Your task to perform on an android device: find which apps use the phone's location Image 0: 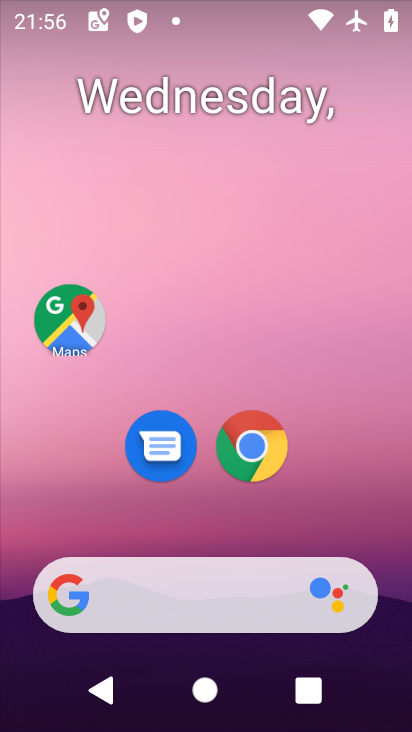
Step 0: press home button
Your task to perform on an android device: find which apps use the phone's location Image 1: 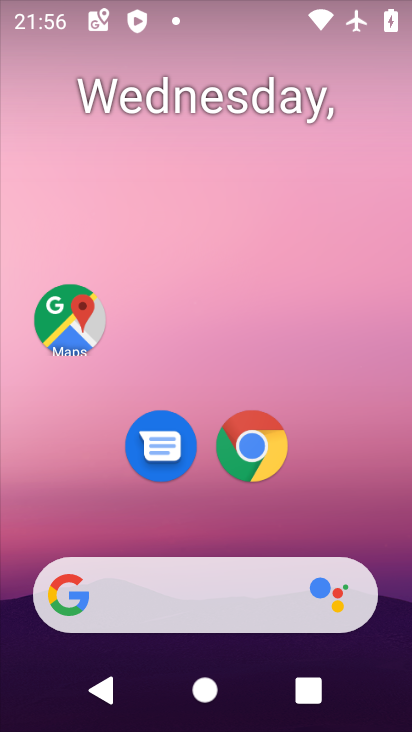
Step 1: drag from (167, 605) to (295, 207)
Your task to perform on an android device: find which apps use the phone's location Image 2: 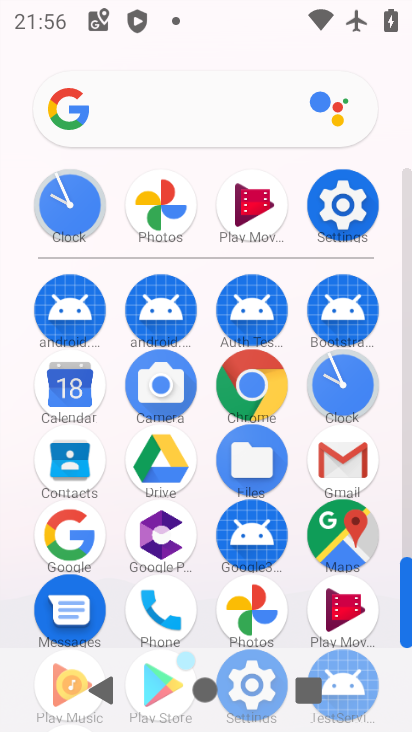
Step 2: click (336, 217)
Your task to perform on an android device: find which apps use the phone's location Image 3: 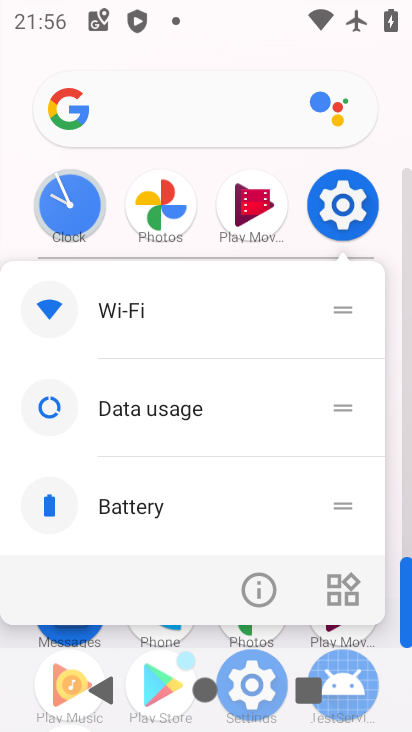
Step 3: click (342, 207)
Your task to perform on an android device: find which apps use the phone's location Image 4: 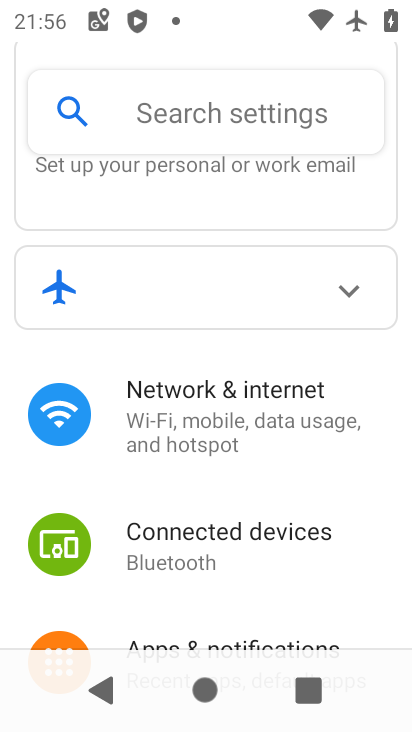
Step 4: drag from (181, 587) to (341, 176)
Your task to perform on an android device: find which apps use the phone's location Image 5: 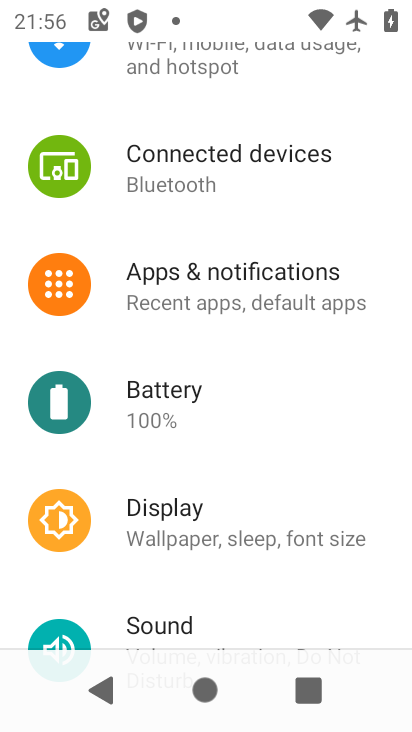
Step 5: drag from (319, 275) to (332, 135)
Your task to perform on an android device: find which apps use the phone's location Image 6: 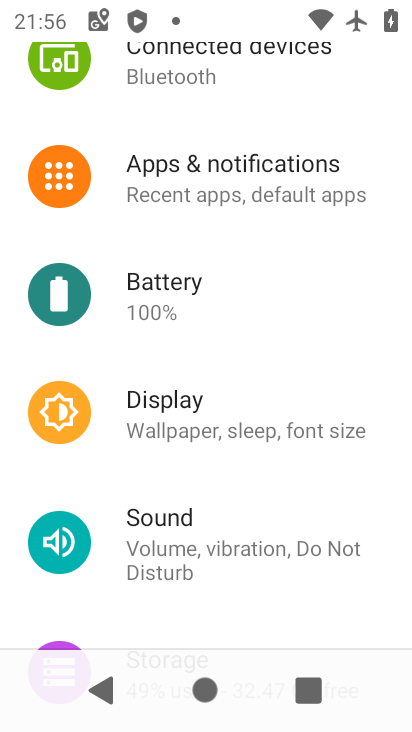
Step 6: drag from (239, 416) to (326, 115)
Your task to perform on an android device: find which apps use the phone's location Image 7: 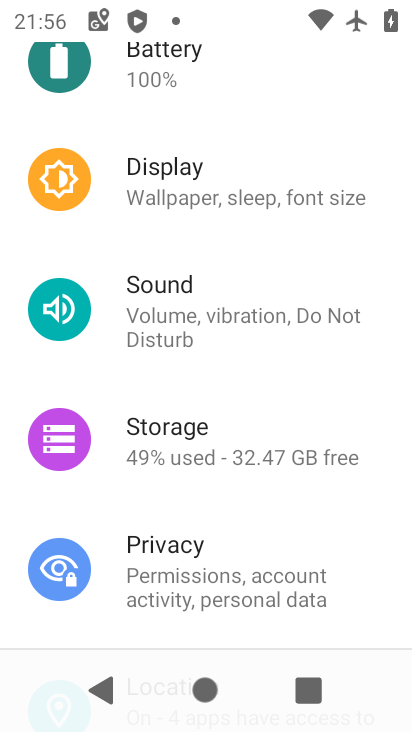
Step 7: drag from (195, 533) to (314, 246)
Your task to perform on an android device: find which apps use the phone's location Image 8: 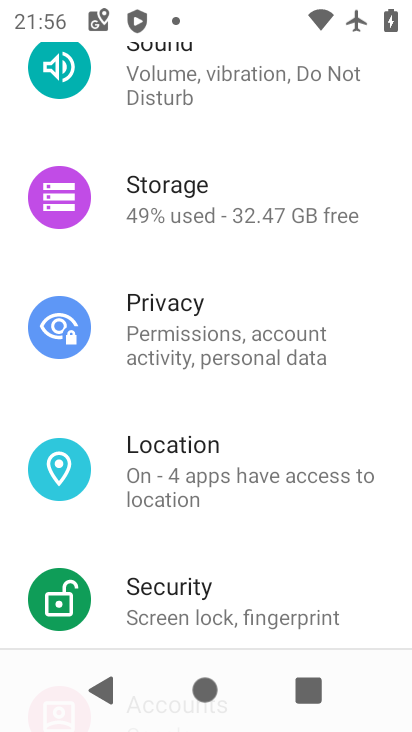
Step 8: click (209, 448)
Your task to perform on an android device: find which apps use the phone's location Image 9: 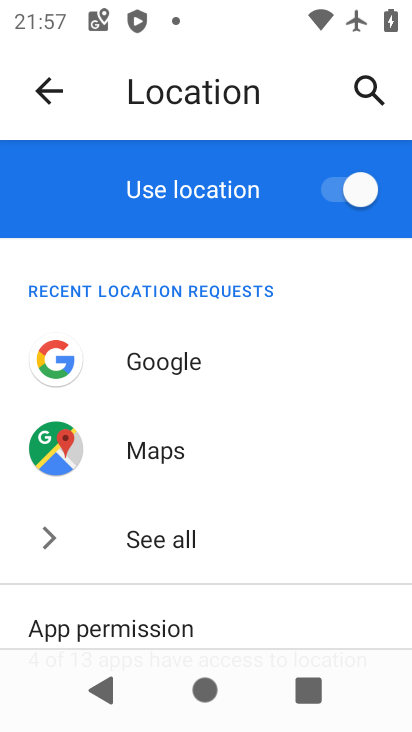
Step 9: drag from (261, 421) to (354, 139)
Your task to perform on an android device: find which apps use the phone's location Image 10: 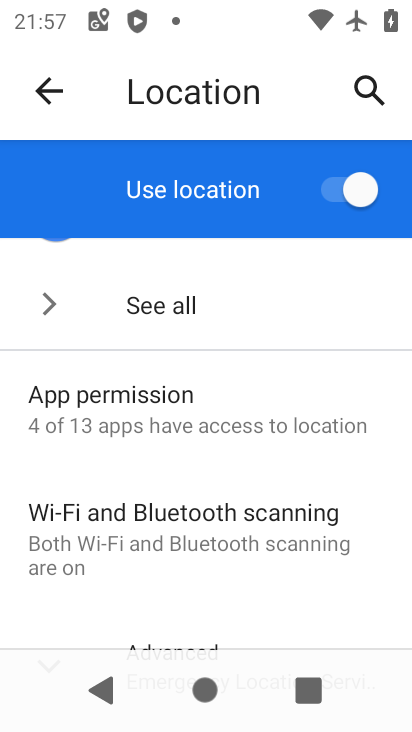
Step 10: click (154, 412)
Your task to perform on an android device: find which apps use the phone's location Image 11: 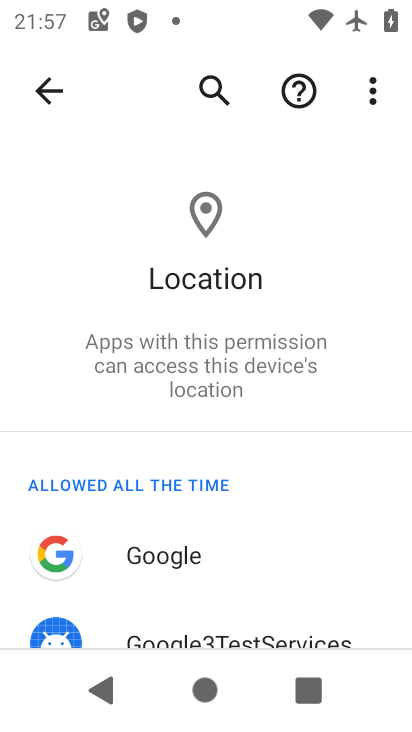
Step 11: drag from (262, 608) to (386, 60)
Your task to perform on an android device: find which apps use the phone's location Image 12: 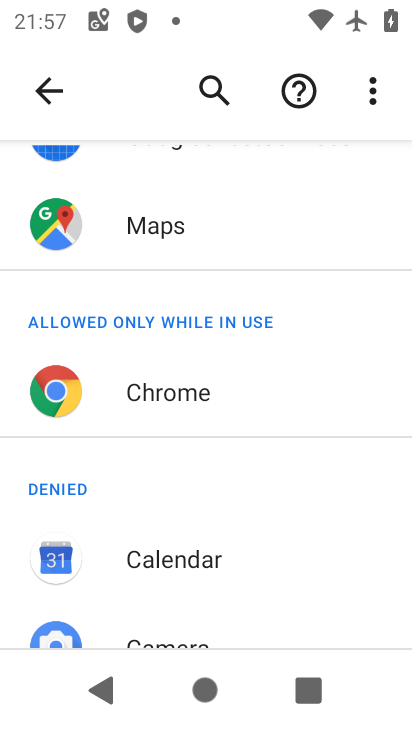
Step 12: drag from (257, 497) to (386, 45)
Your task to perform on an android device: find which apps use the phone's location Image 13: 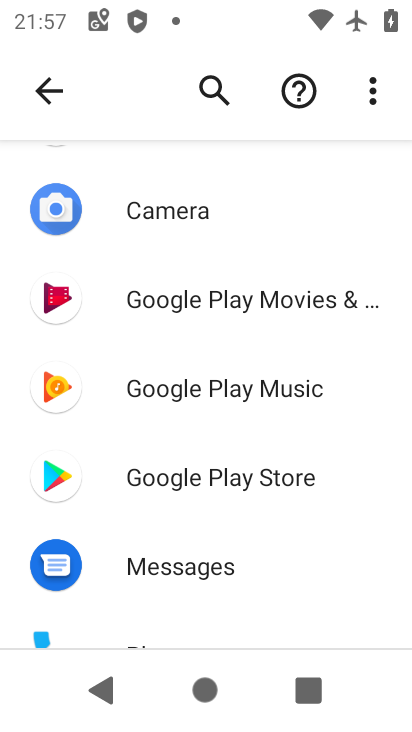
Step 13: drag from (256, 376) to (329, 118)
Your task to perform on an android device: find which apps use the phone's location Image 14: 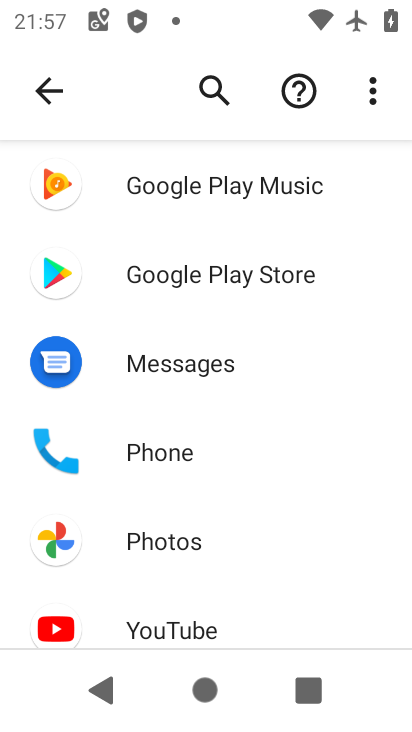
Step 14: click (164, 450)
Your task to perform on an android device: find which apps use the phone's location Image 15: 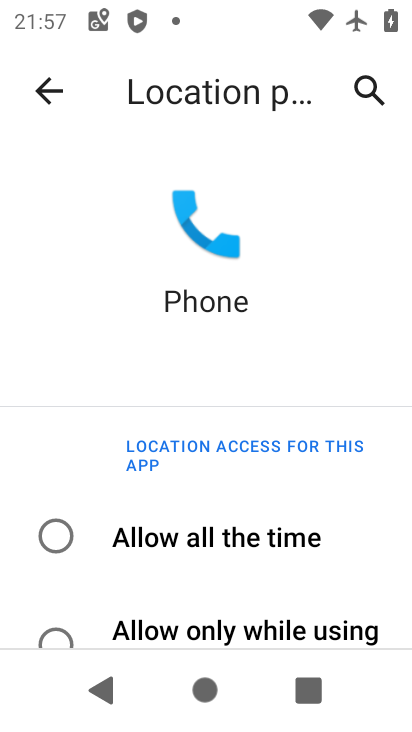
Step 15: task complete